Your task to perform on an android device: delete browsing data in the chrome app Image 0: 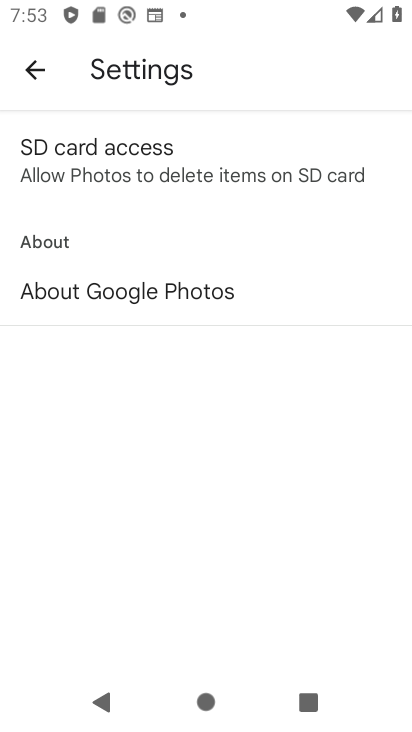
Step 0: press home button
Your task to perform on an android device: delete browsing data in the chrome app Image 1: 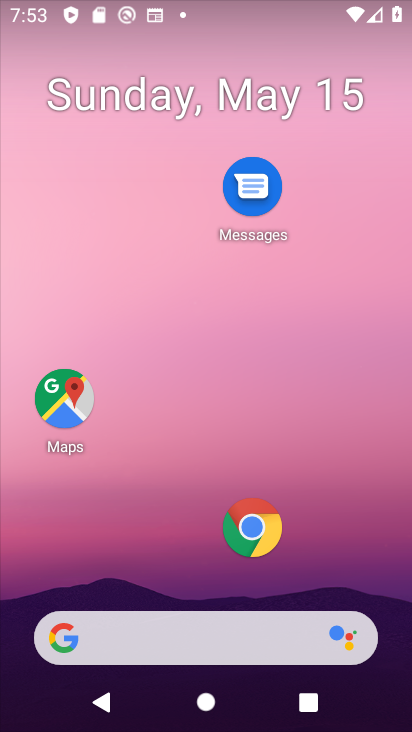
Step 1: click (260, 528)
Your task to perform on an android device: delete browsing data in the chrome app Image 2: 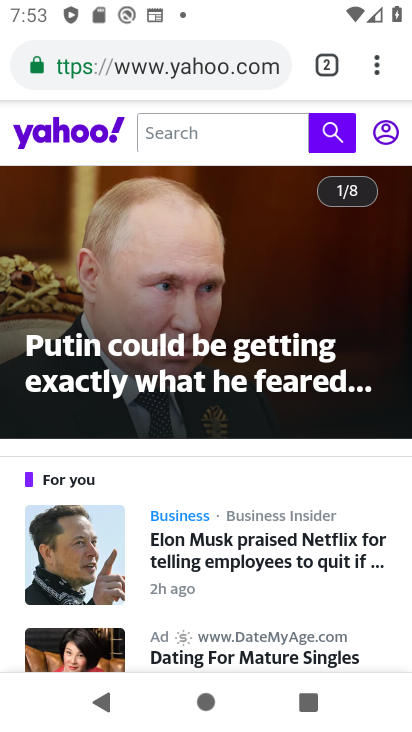
Step 2: drag from (375, 69) to (227, 572)
Your task to perform on an android device: delete browsing data in the chrome app Image 3: 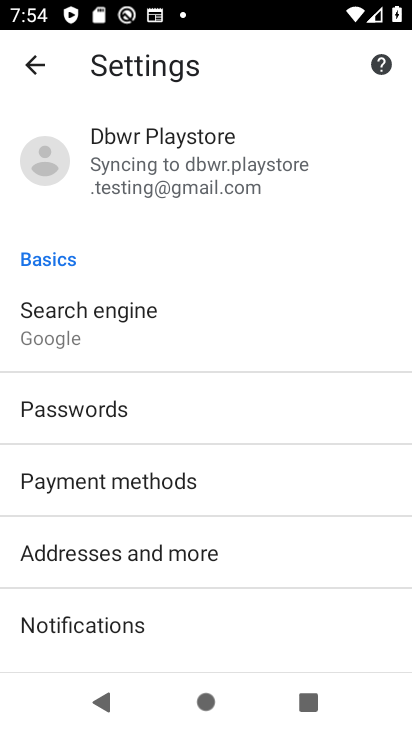
Step 3: drag from (154, 586) to (300, 159)
Your task to perform on an android device: delete browsing data in the chrome app Image 4: 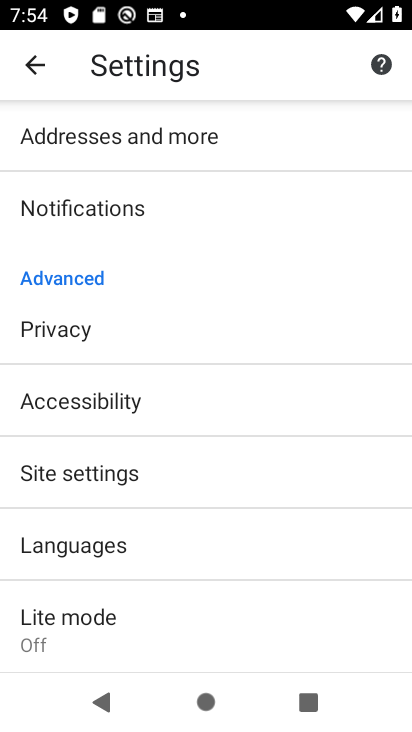
Step 4: click (74, 333)
Your task to perform on an android device: delete browsing data in the chrome app Image 5: 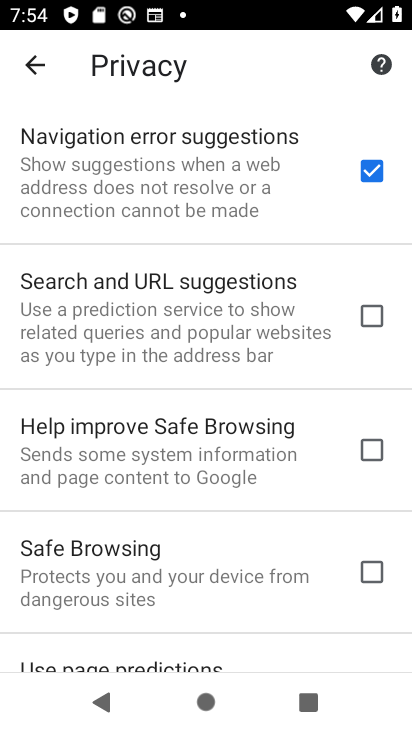
Step 5: drag from (102, 642) to (270, 69)
Your task to perform on an android device: delete browsing data in the chrome app Image 6: 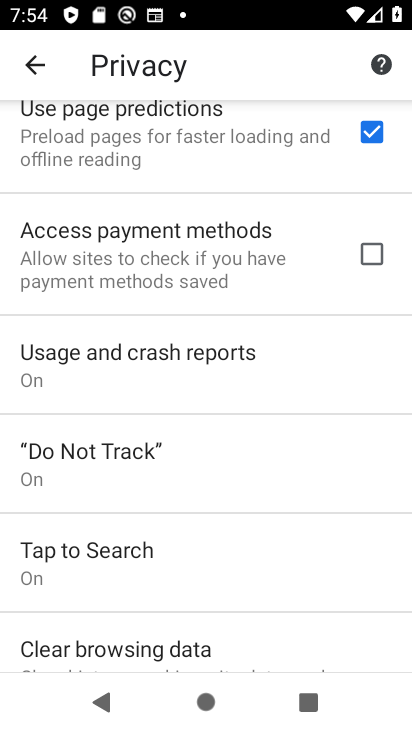
Step 6: drag from (154, 582) to (290, 88)
Your task to perform on an android device: delete browsing data in the chrome app Image 7: 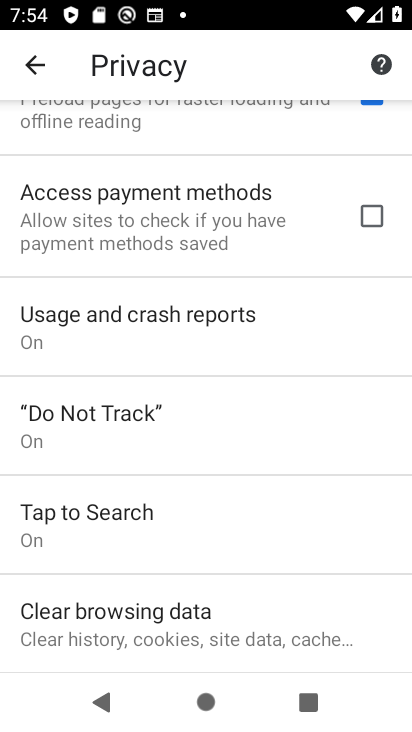
Step 7: click (142, 600)
Your task to perform on an android device: delete browsing data in the chrome app Image 8: 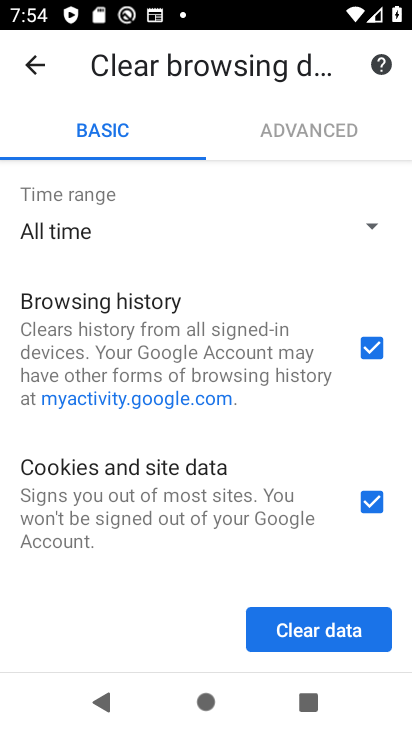
Step 8: drag from (196, 537) to (315, 201)
Your task to perform on an android device: delete browsing data in the chrome app Image 9: 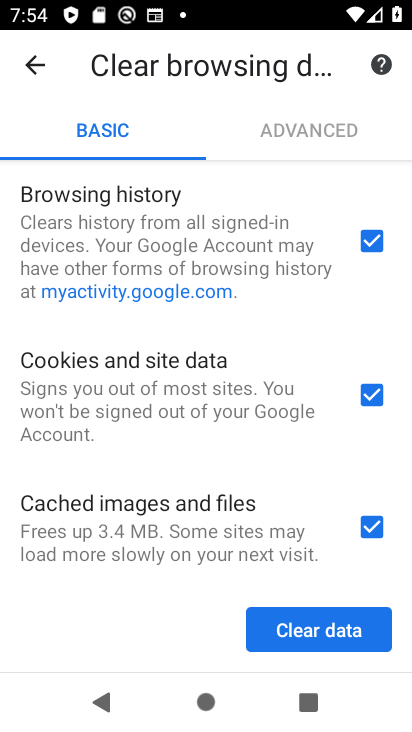
Step 9: click (321, 642)
Your task to perform on an android device: delete browsing data in the chrome app Image 10: 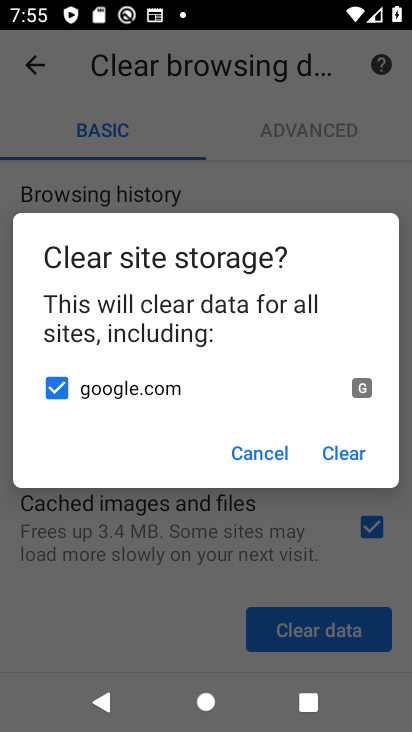
Step 10: click (346, 453)
Your task to perform on an android device: delete browsing data in the chrome app Image 11: 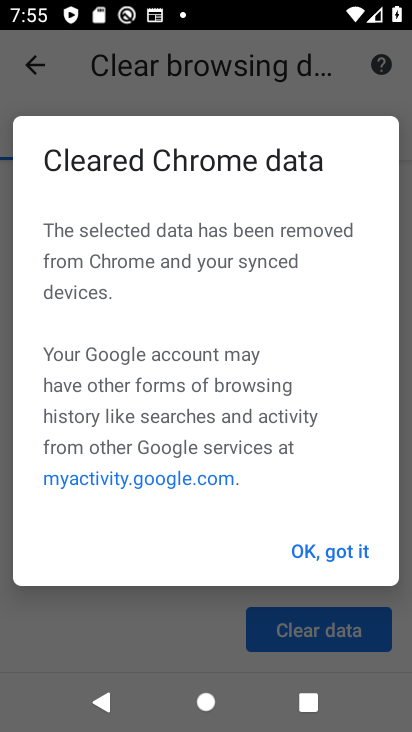
Step 11: click (345, 552)
Your task to perform on an android device: delete browsing data in the chrome app Image 12: 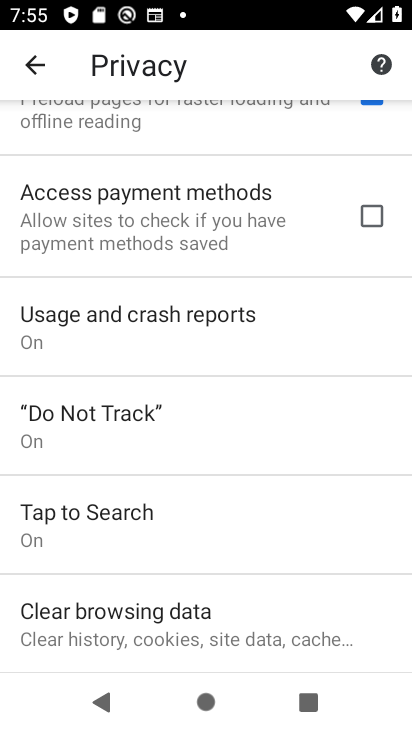
Step 12: task complete